Your task to perform on an android device: Add razer deathadder to the cart on ebay Image 0: 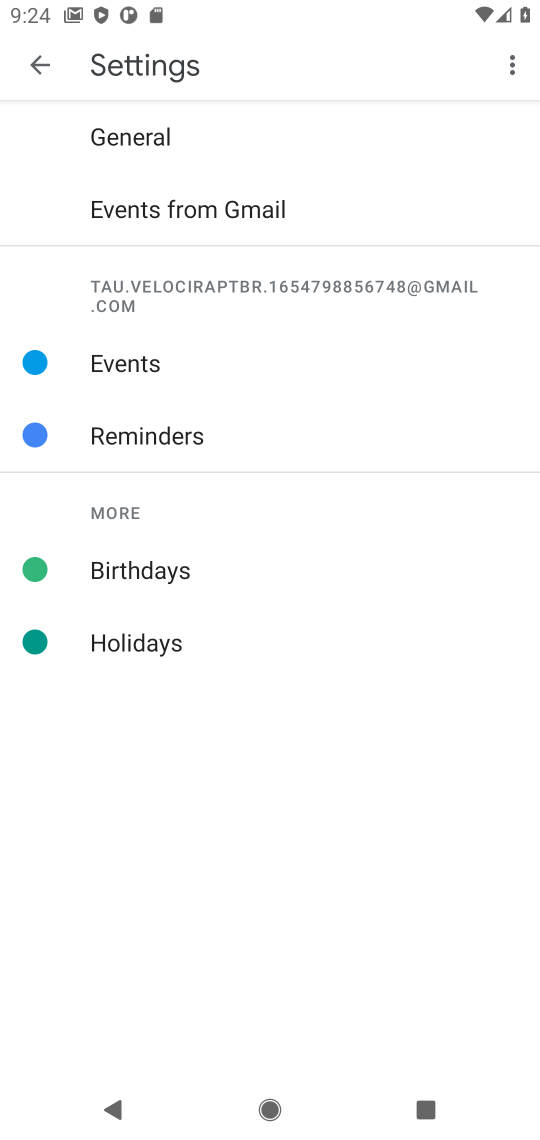
Step 0: press home button
Your task to perform on an android device: Add razer deathadder to the cart on ebay Image 1: 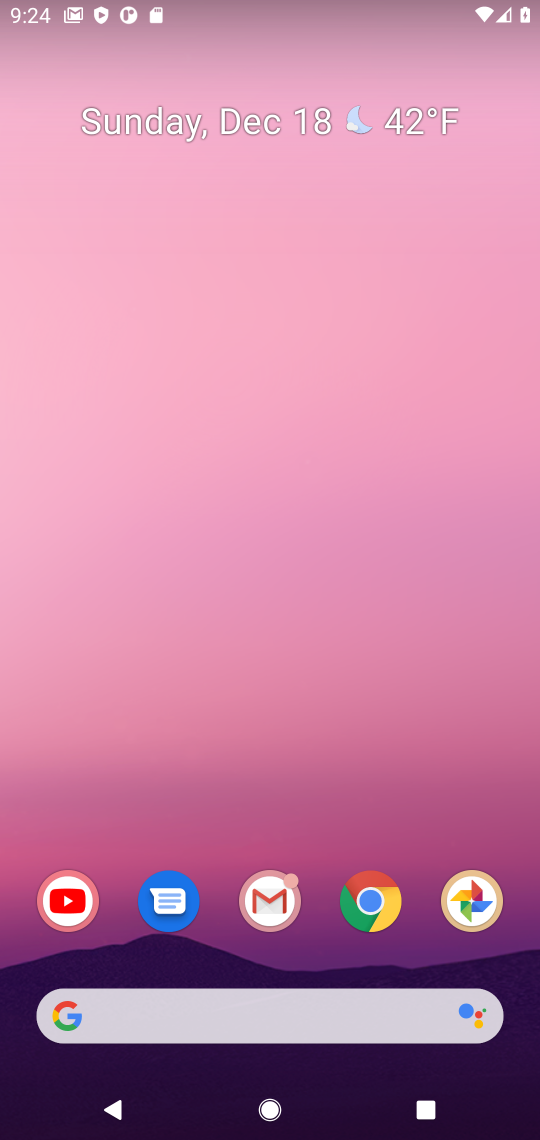
Step 1: click (354, 892)
Your task to perform on an android device: Add razer deathadder to the cart on ebay Image 2: 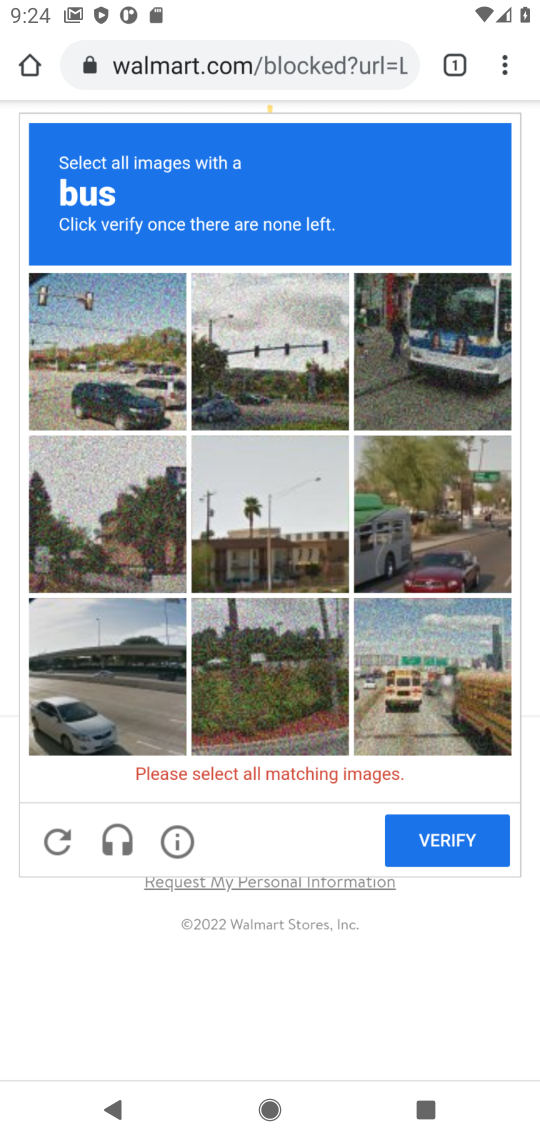
Step 2: click (360, 898)
Your task to perform on an android device: Add razer deathadder to the cart on ebay Image 3: 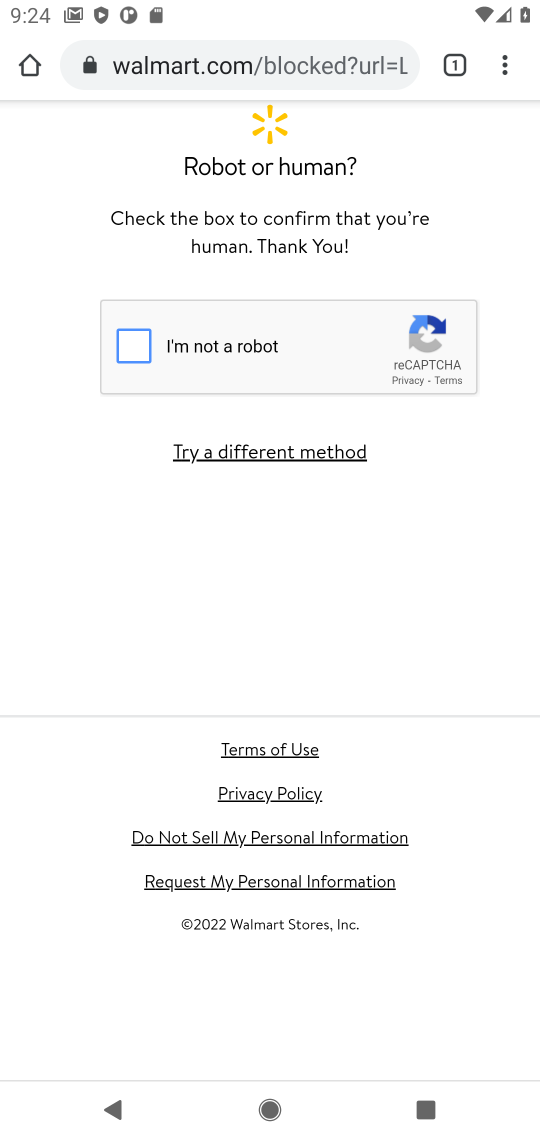
Step 3: click (214, 56)
Your task to perform on an android device: Add razer deathadder to the cart on ebay Image 4: 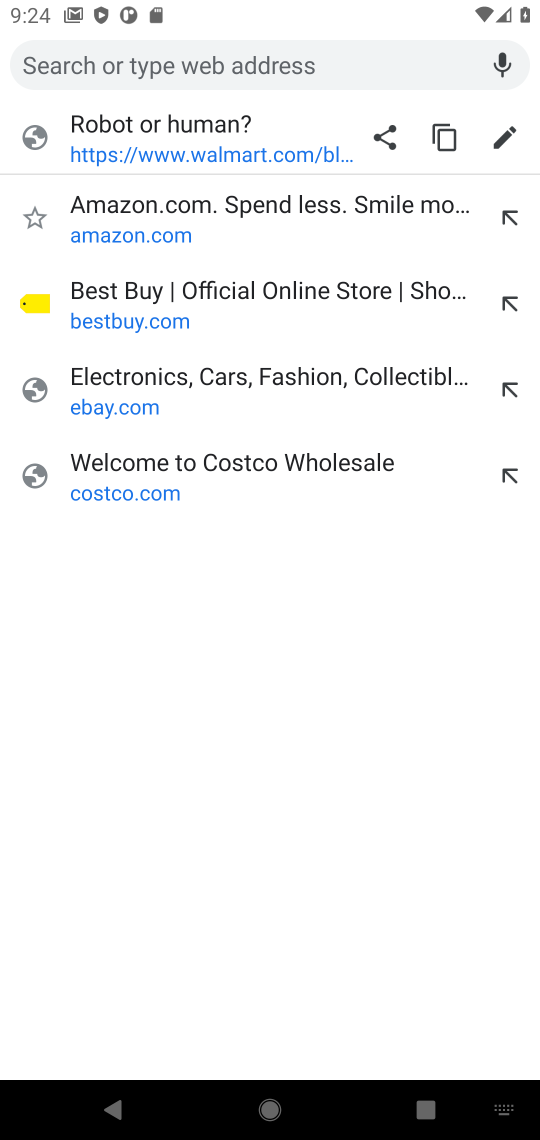
Step 4: type "ebay"
Your task to perform on an android device: Add razer deathadder to the cart on ebay Image 5: 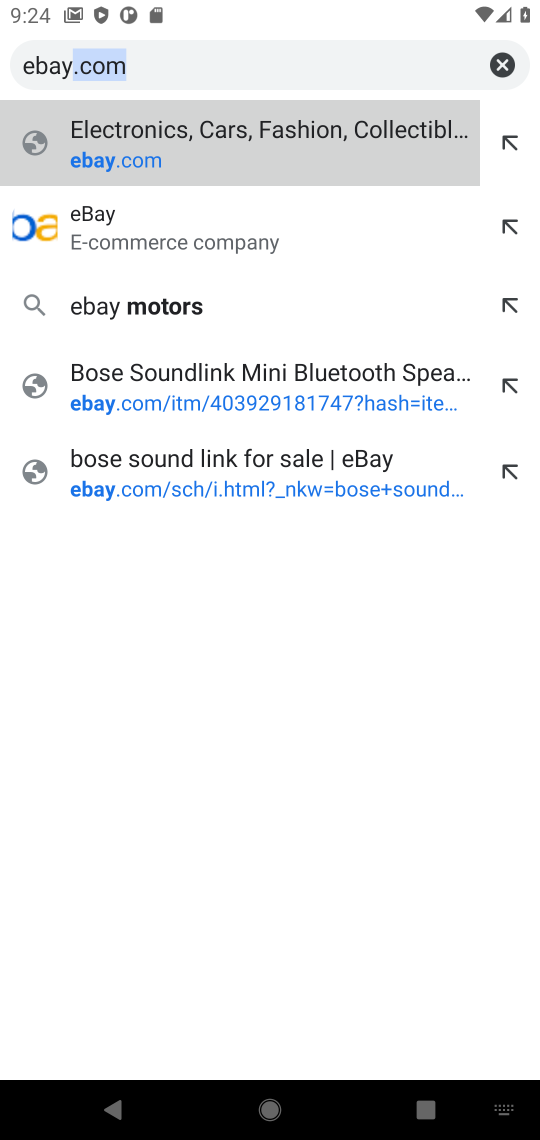
Step 5: click (139, 144)
Your task to perform on an android device: Add razer deathadder to the cart on ebay Image 6: 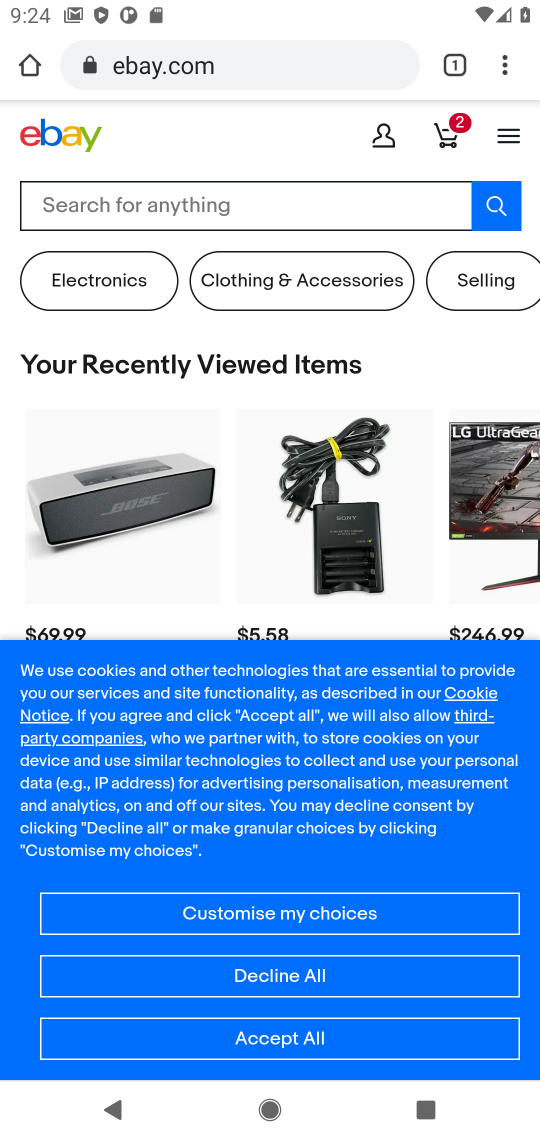
Step 6: click (138, 204)
Your task to perform on an android device: Add razer deathadder to the cart on ebay Image 7: 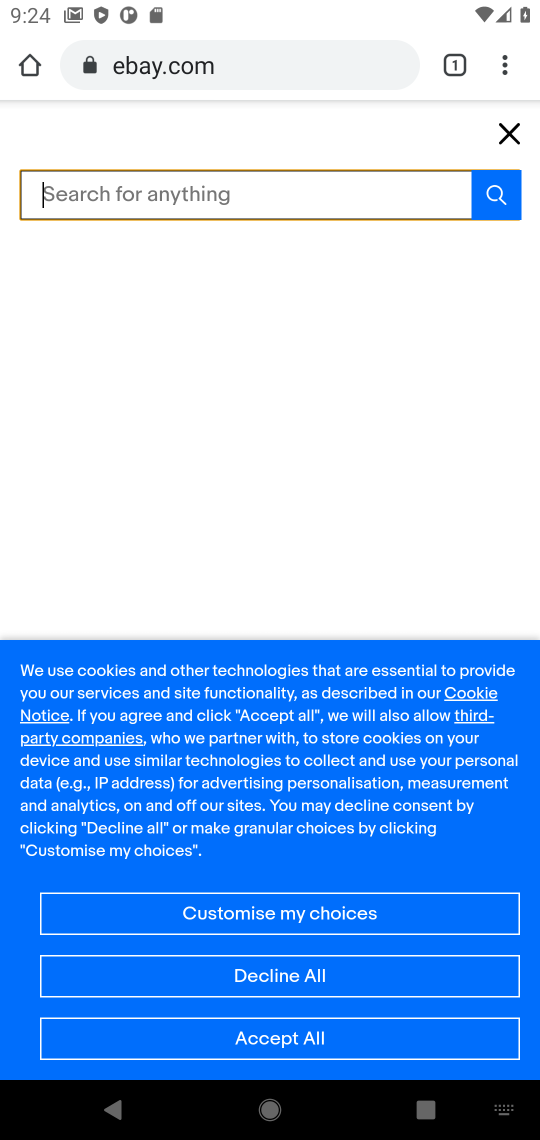
Step 7: type "razer deathadder"
Your task to perform on an android device: Add razer deathadder to the cart on ebay Image 8: 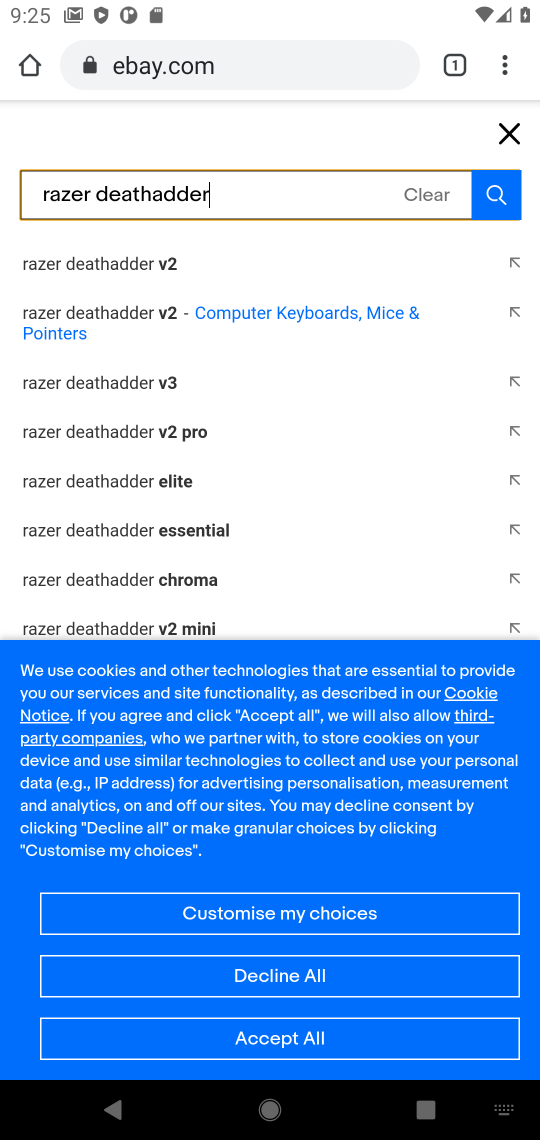
Step 8: click (109, 279)
Your task to perform on an android device: Add razer deathadder to the cart on ebay Image 9: 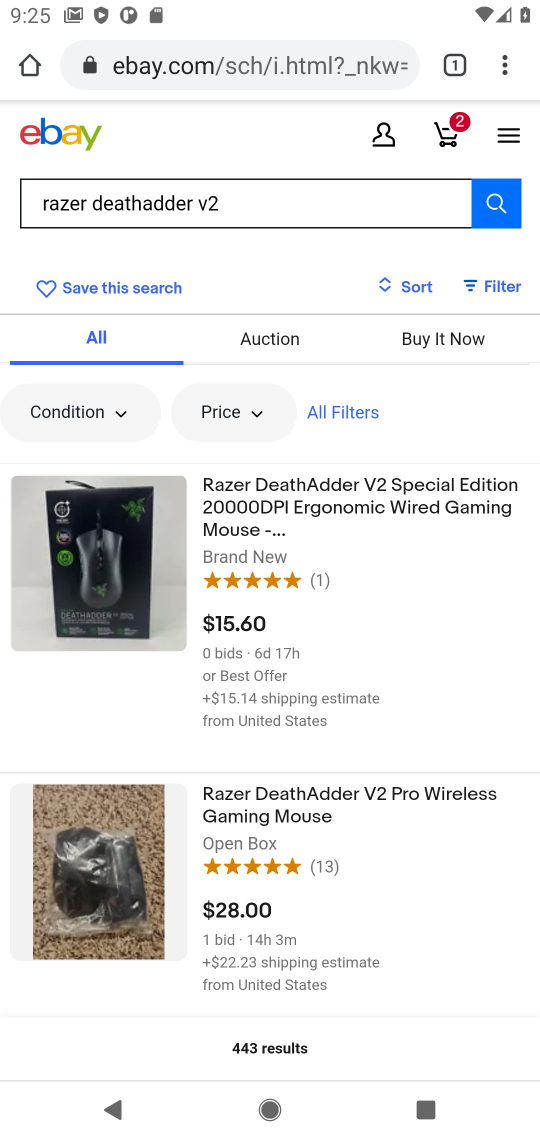
Step 9: click (305, 495)
Your task to perform on an android device: Add razer deathadder to the cart on ebay Image 10: 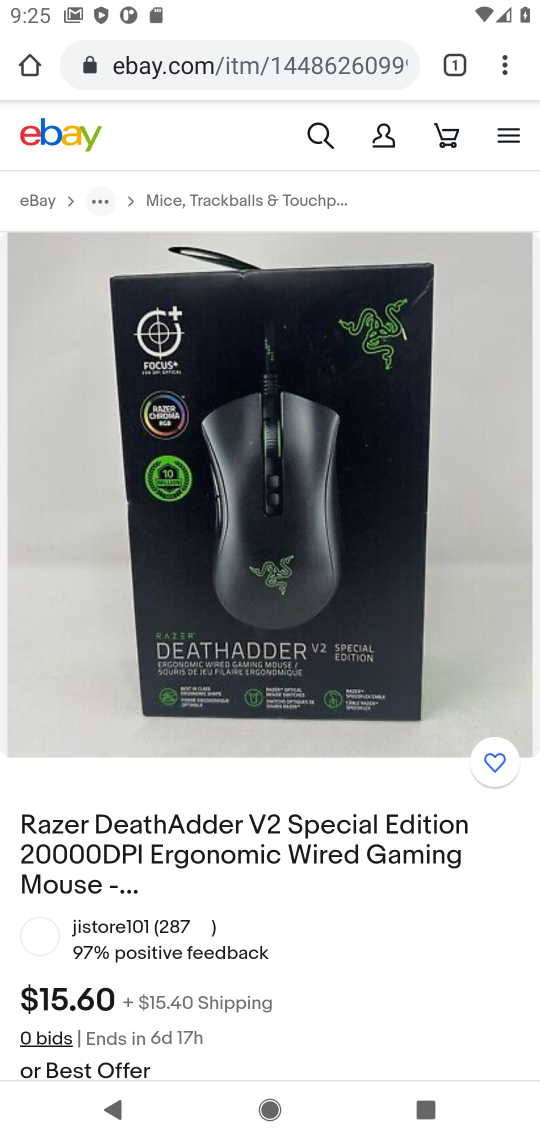
Step 10: drag from (229, 817) to (242, 319)
Your task to perform on an android device: Add razer deathadder to the cart on ebay Image 11: 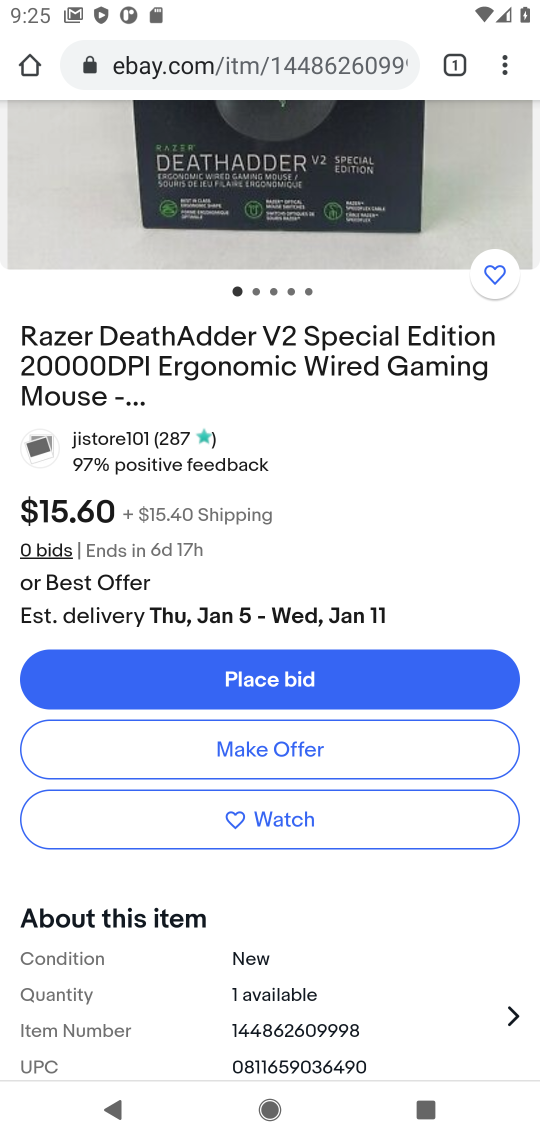
Step 11: click (271, 692)
Your task to perform on an android device: Add razer deathadder to the cart on ebay Image 12: 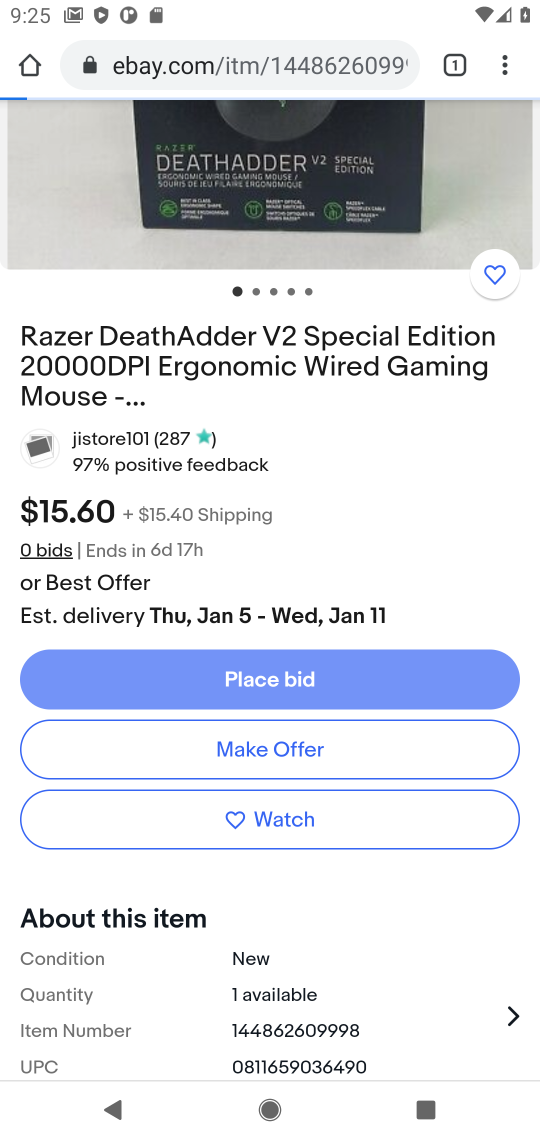
Step 12: task complete